Your task to perform on an android device: Clear all items from cart on ebay. Add "jbl flip 4" to the cart on ebay Image 0: 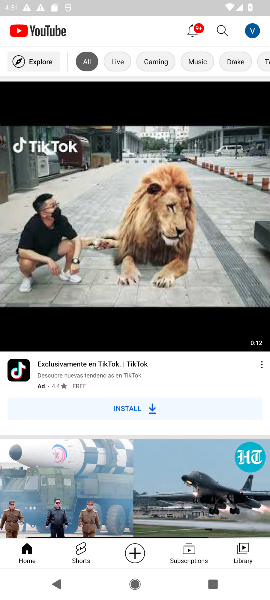
Step 0: press home button
Your task to perform on an android device: Clear all items from cart on ebay. Add "jbl flip 4" to the cart on ebay Image 1: 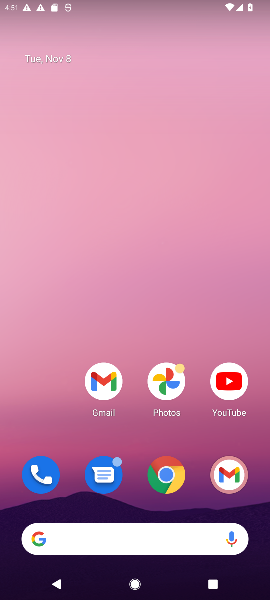
Step 1: drag from (108, 516) to (114, 80)
Your task to perform on an android device: Clear all items from cart on ebay. Add "jbl flip 4" to the cart on ebay Image 2: 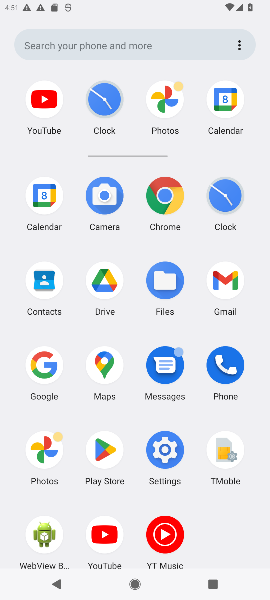
Step 2: click (42, 358)
Your task to perform on an android device: Clear all items from cart on ebay. Add "jbl flip 4" to the cart on ebay Image 3: 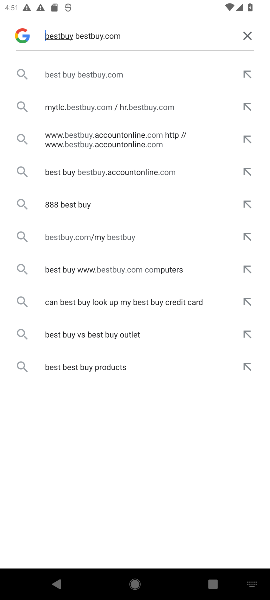
Step 3: click (244, 33)
Your task to perform on an android device: Clear all items from cart on ebay. Add "jbl flip 4" to the cart on ebay Image 4: 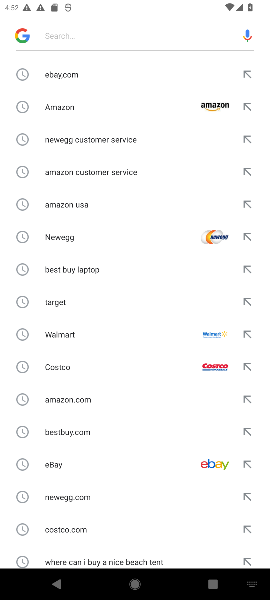
Step 4: click (88, 32)
Your task to perform on an android device: Clear all items from cart on ebay. Add "jbl flip 4" to the cart on ebay Image 5: 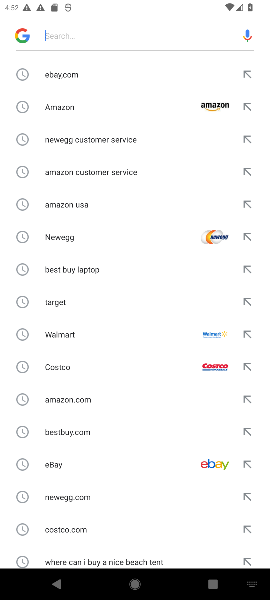
Step 5: type "ebay "
Your task to perform on an android device: Clear all items from cart on ebay. Add "jbl flip 4" to the cart on ebay Image 6: 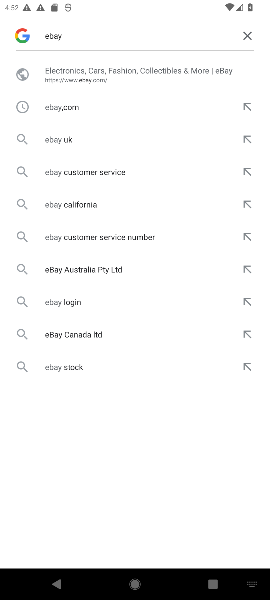
Step 6: click (67, 107)
Your task to perform on an android device: Clear all items from cart on ebay. Add "jbl flip 4" to the cart on ebay Image 7: 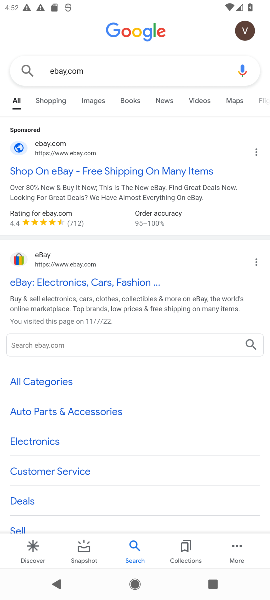
Step 7: click (13, 258)
Your task to perform on an android device: Clear all items from cart on ebay. Add "jbl flip 4" to the cart on ebay Image 8: 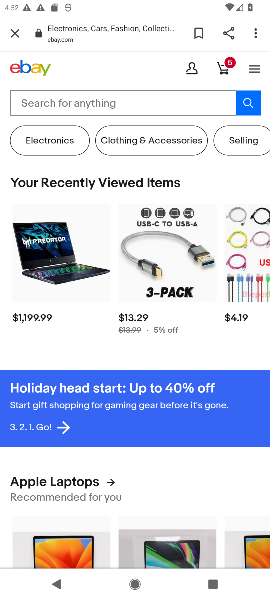
Step 8: click (110, 92)
Your task to perform on an android device: Clear all items from cart on ebay. Add "jbl flip 4" to the cart on ebay Image 9: 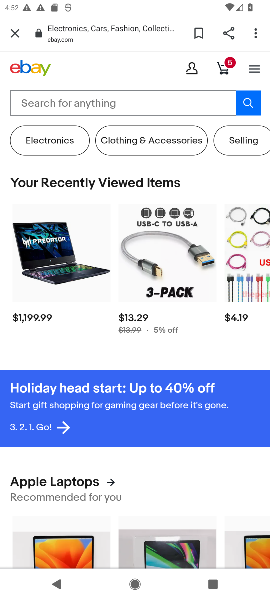
Step 9: click (110, 93)
Your task to perform on an android device: Clear all items from cart on ebay. Add "jbl flip 4" to the cart on ebay Image 10: 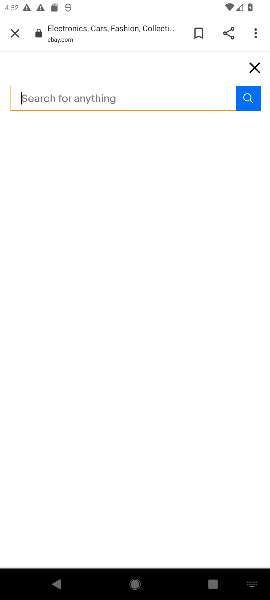
Step 10: type "jbl flip 4 "
Your task to perform on an android device: Clear all items from cart on ebay. Add "jbl flip 4" to the cart on ebay Image 11: 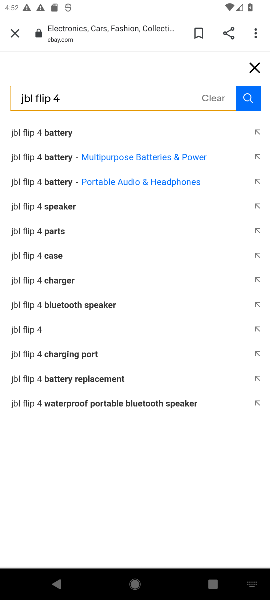
Step 11: click (245, 99)
Your task to perform on an android device: Clear all items from cart on ebay. Add "jbl flip 4" to the cart on ebay Image 12: 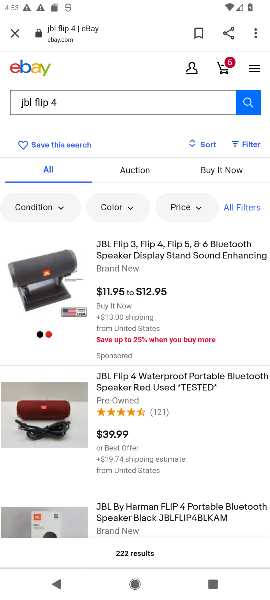
Step 12: click (144, 393)
Your task to perform on an android device: Clear all items from cart on ebay. Add "jbl flip 4" to the cart on ebay Image 13: 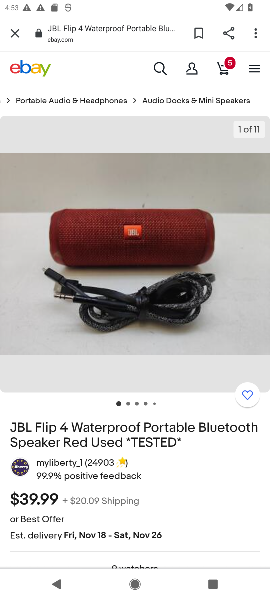
Step 13: drag from (168, 533) to (195, 204)
Your task to perform on an android device: Clear all items from cart on ebay. Add "jbl flip 4" to the cart on ebay Image 14: 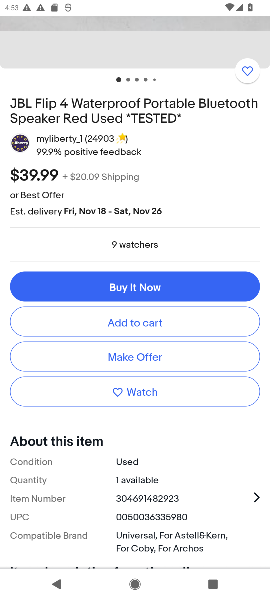
Step 14: click (157, 321)
Your task to perform on an android device: Clear all items from cart on ebay. Add "jbl flip 4" to the cart on ebay Image 15: 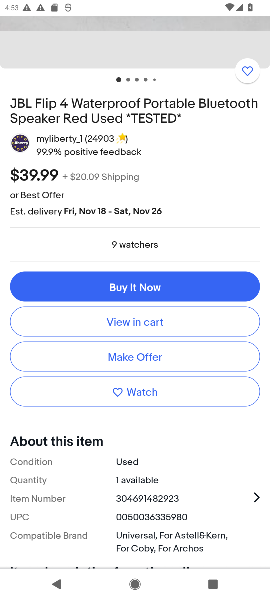
Step 15: click (157, 321)
Your task to perform on an android device: Clear all items from cart on ebay. Add "jbl flip 4" to the cart on ebay Image 16: 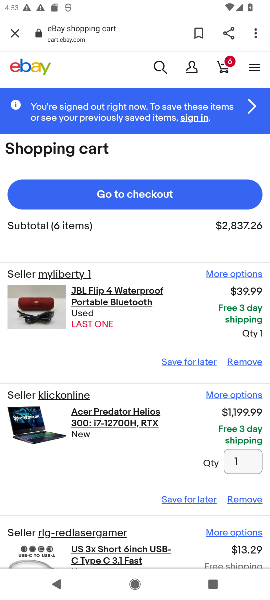
Step 16: task complete